Your task to perform on an android device: Add usb-b to the cart on ebay.com, then select checkout. Image 0: 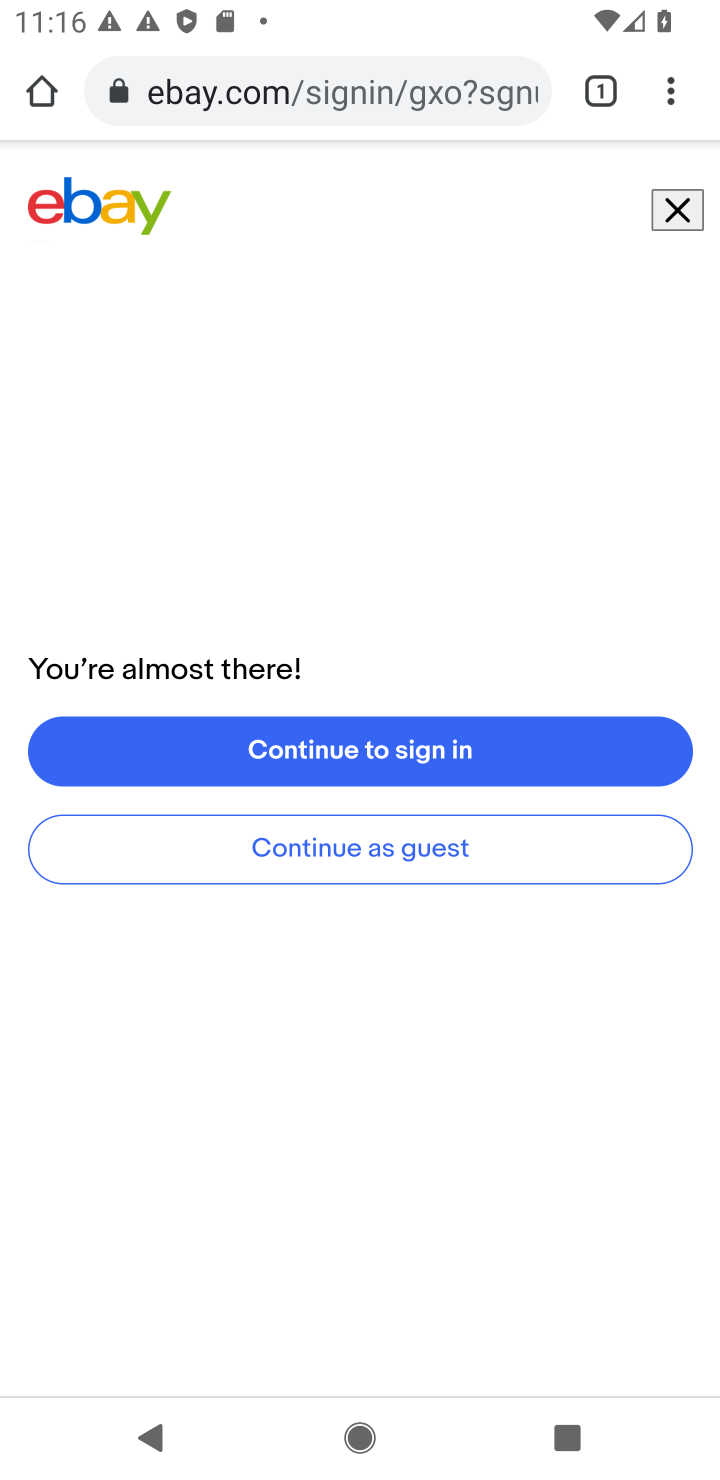
Step 0: click (691, 210)
Your task to perform on an android device: Add usb-b to the cart on ebay.com, then select checkout. Image 1: 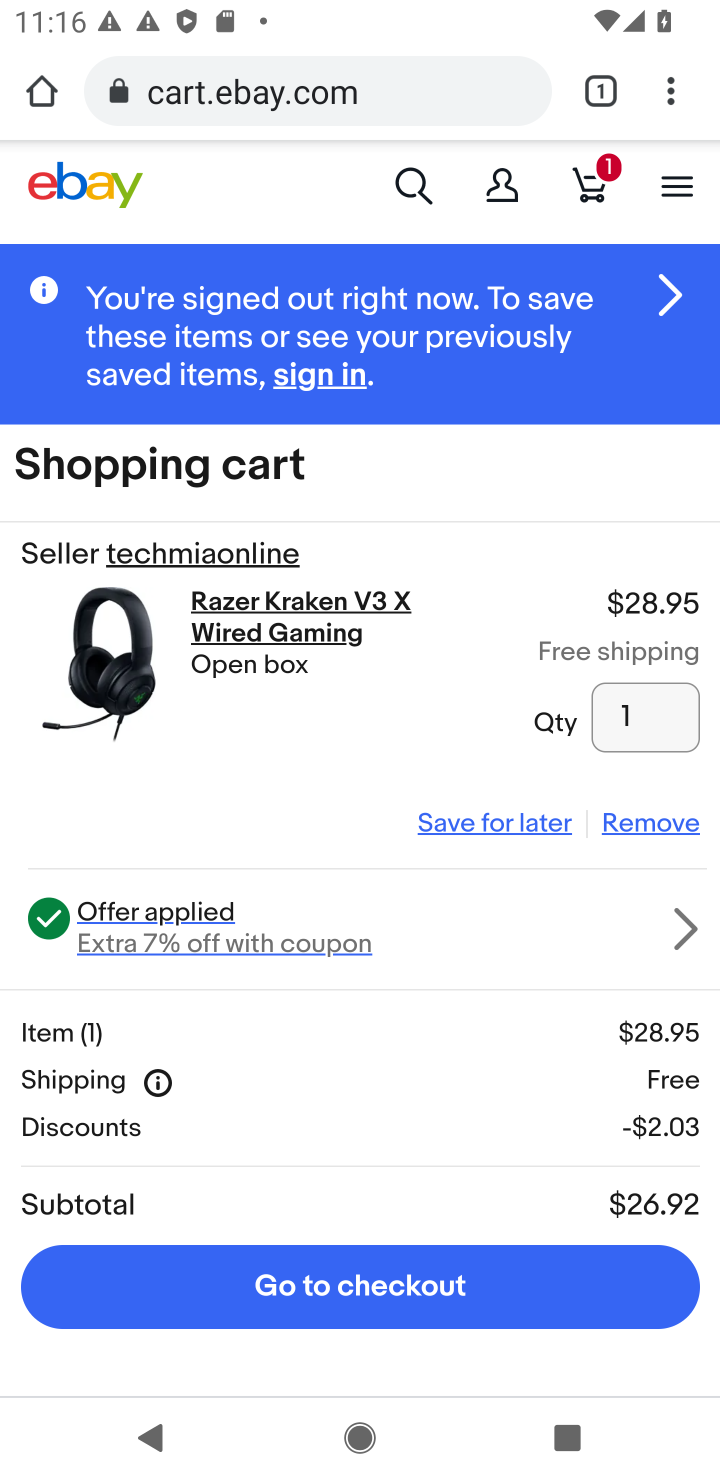
Step 1: click (406, 182)
Your task to perform on an android device: Add usb-b to the cart on ebay.com, then select checkout. Image 2: 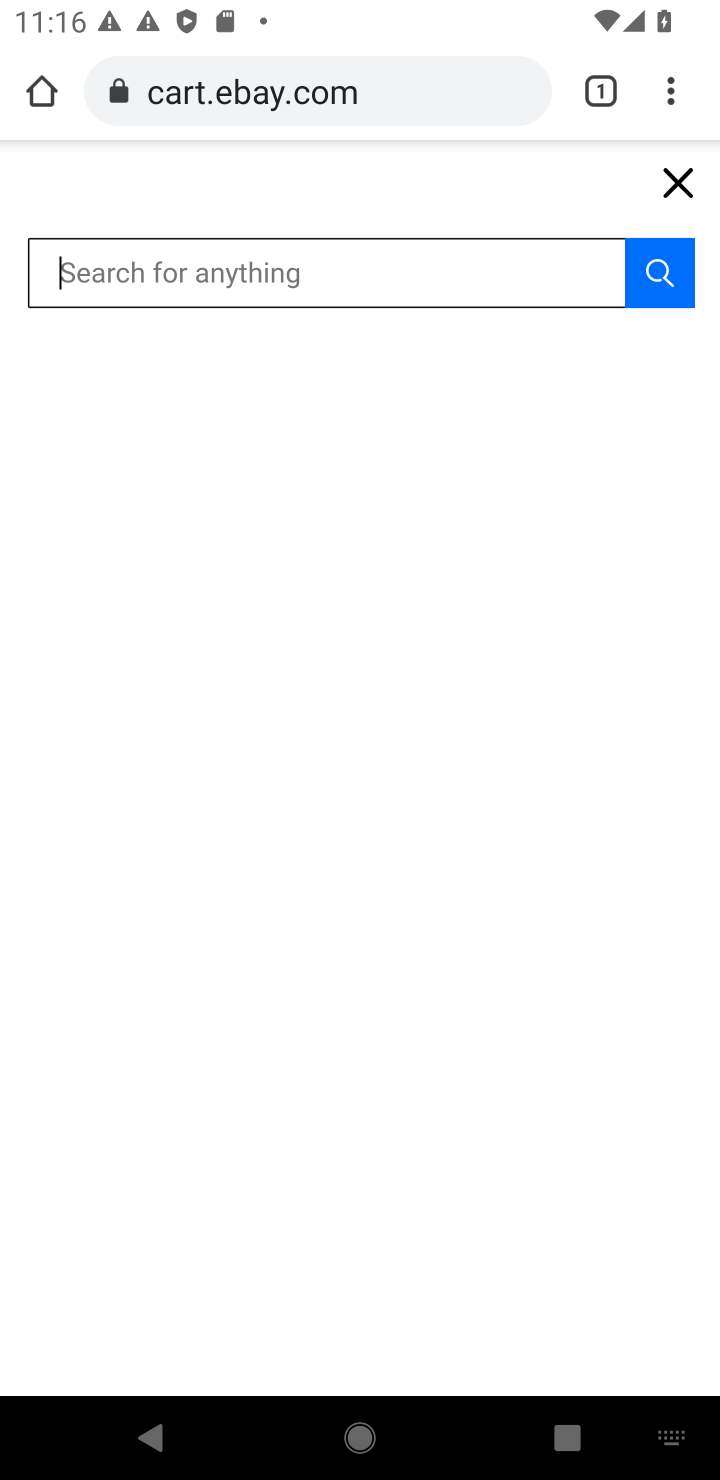
Step 2: type "usb-b"
Your task to perform on an android device: Add usb-b to the cart on ebay.com, then select checkout. Image 3: 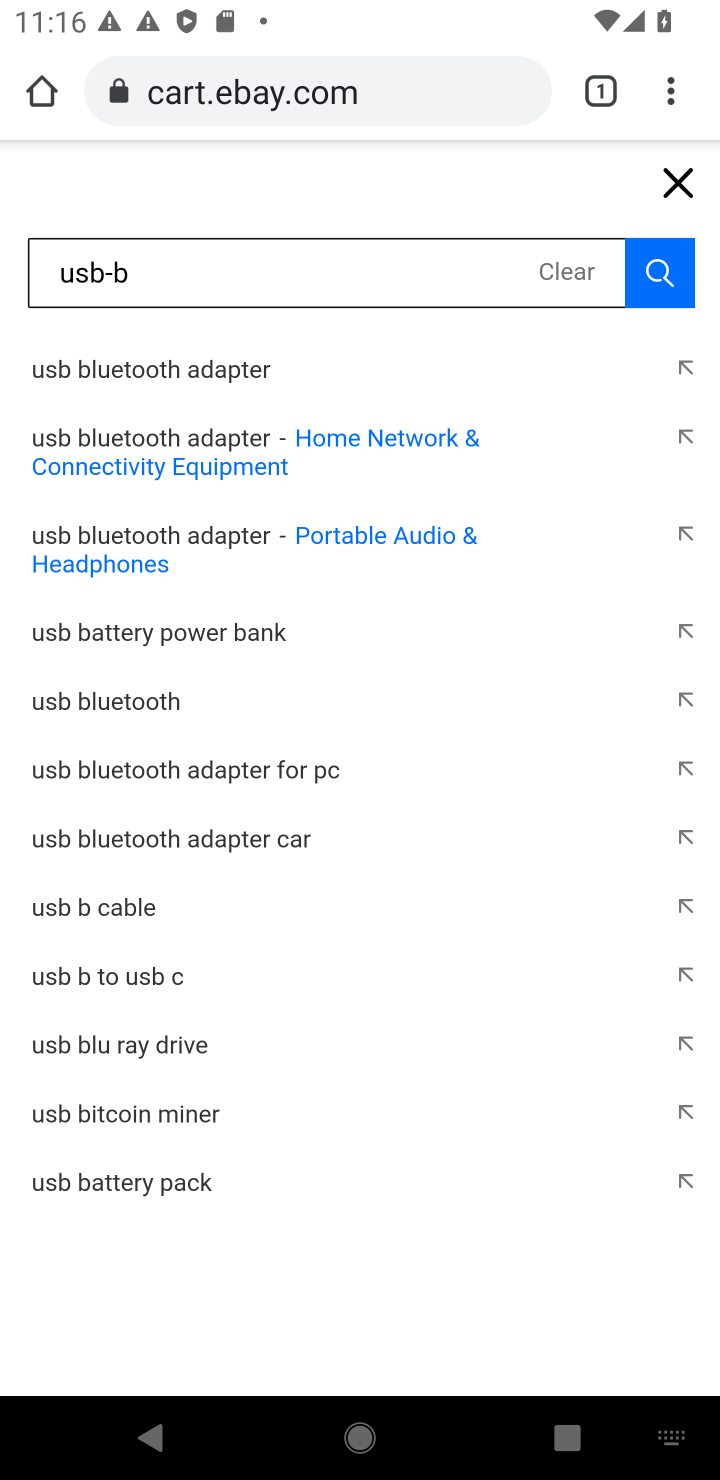
Step 3: click (662, 272)
Your task to perform on an android device: Add usb-b to the cart on ebay.com, then select checkout. Image 4: 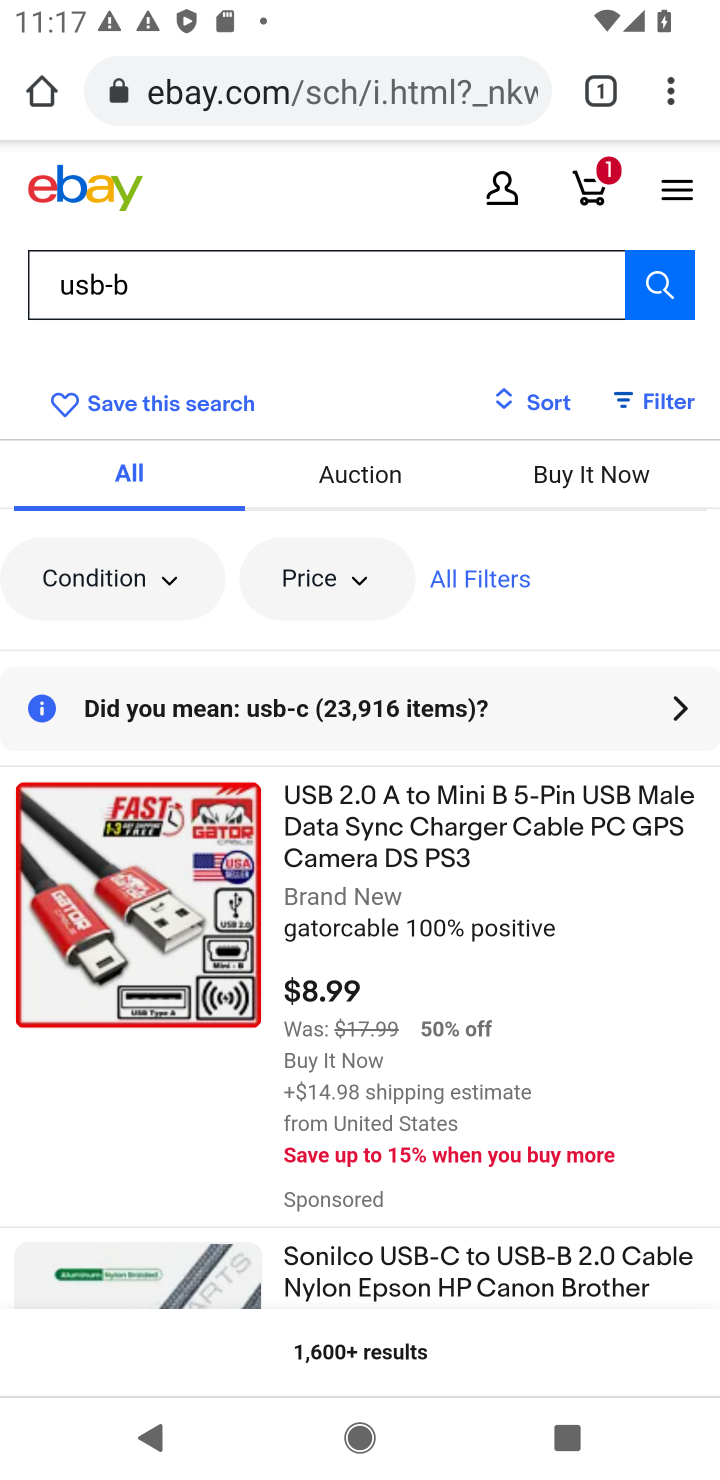
Step 4: drag from (379, 942) to (271, 599)
Your task to perform on an android device: Add usb-b to the cart on ebay.com, then select checkout. Image 5: 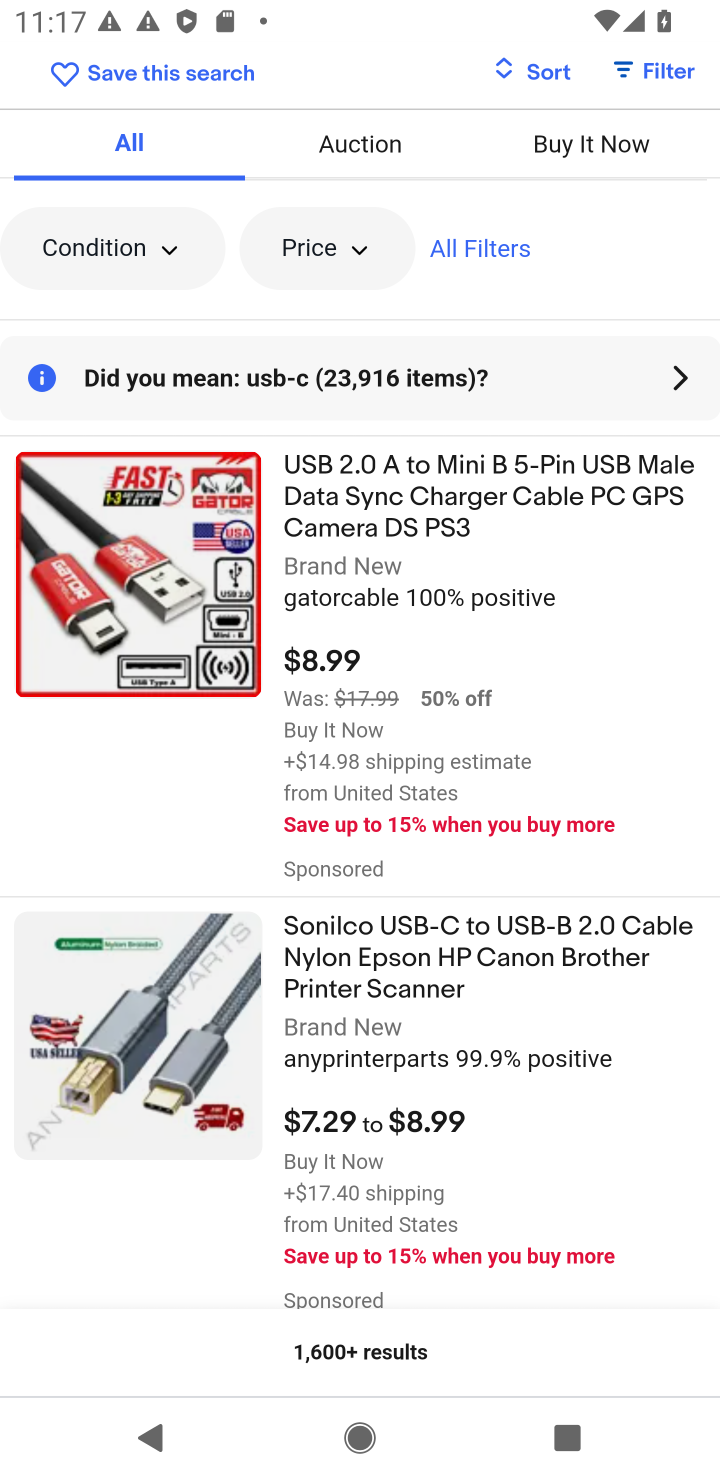
Step 5: click (339, 1000)
Your task to perform on an android device: Add usb-b to the cart on ebay.com, then select checkout. Image 6: 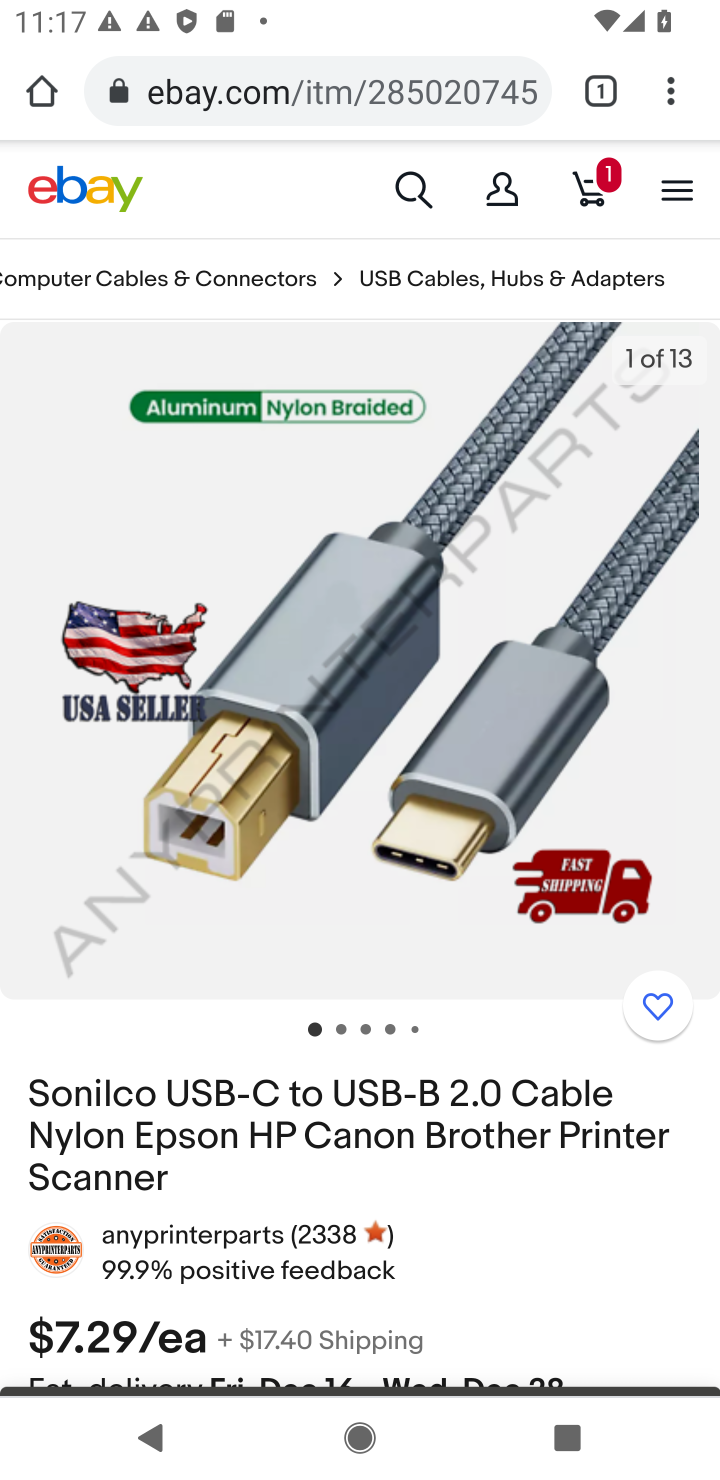
Step 6: drag from (343, 1175) to (315, 470)
Your task to perform on an android device: Add usb-b to the cart on ebay.com, then select checkout. Image 7: 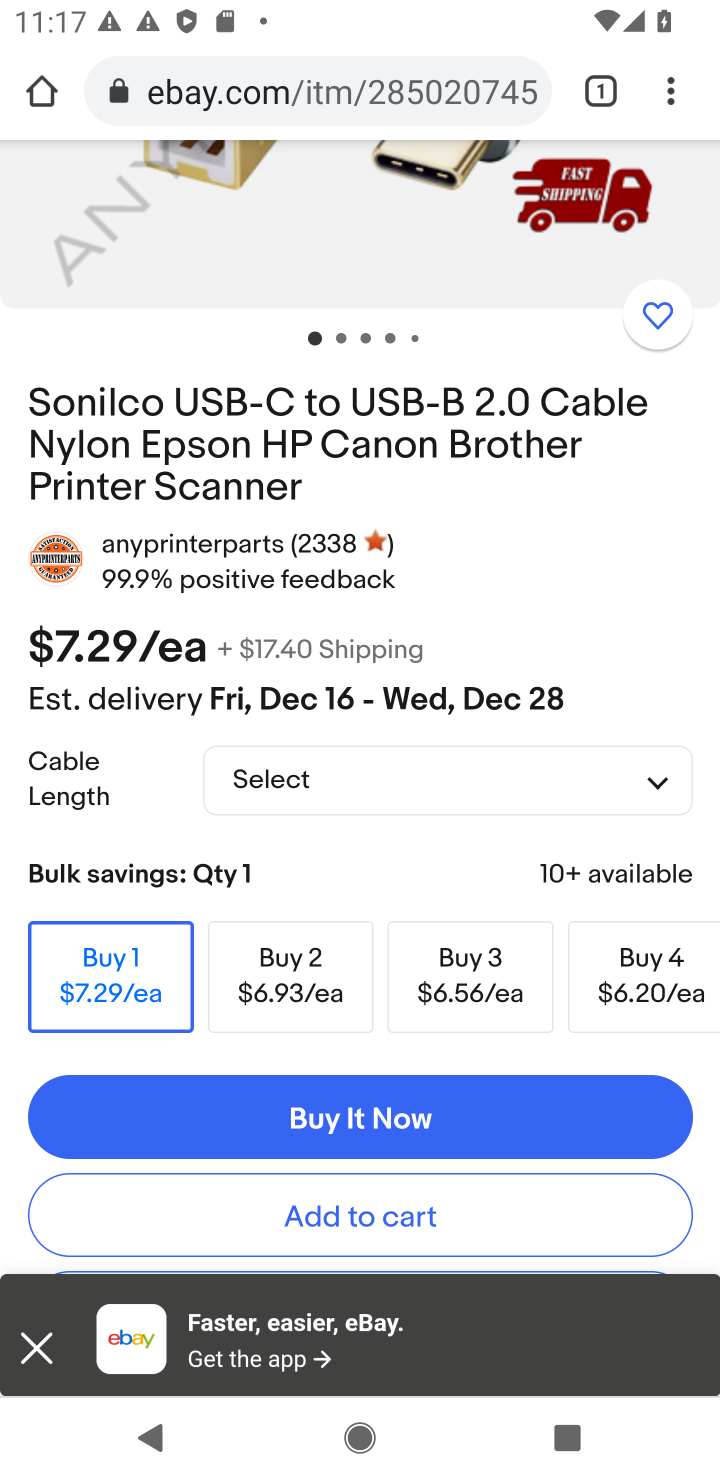
Step 7: click (329, 1211)
Your task to perform on an android device: Add usb-b to the cart on ebay.com, then select checkout. Image 8: 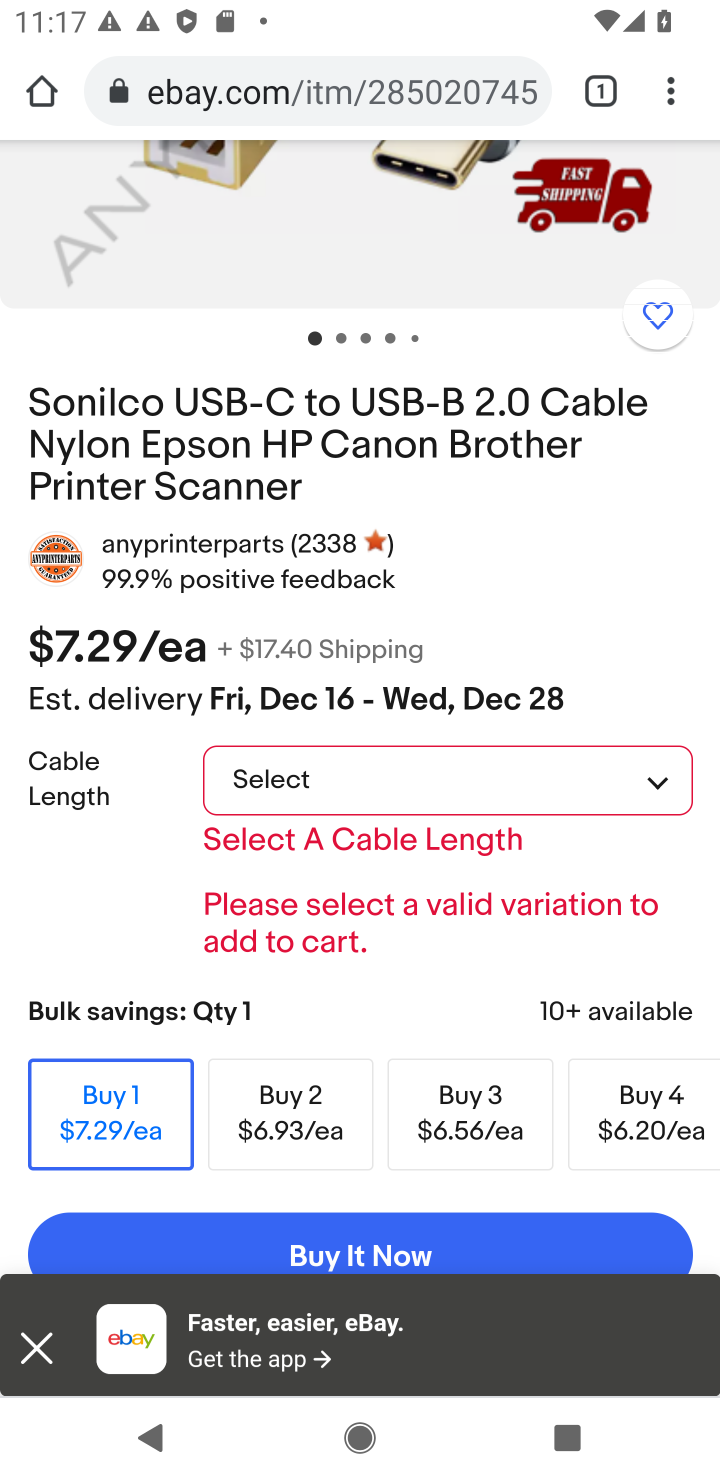
Step 8: click (658, 786)
Your task to perform on an android device: Add usb-b to the cart on ebay.com, then select checkout. Image 9: 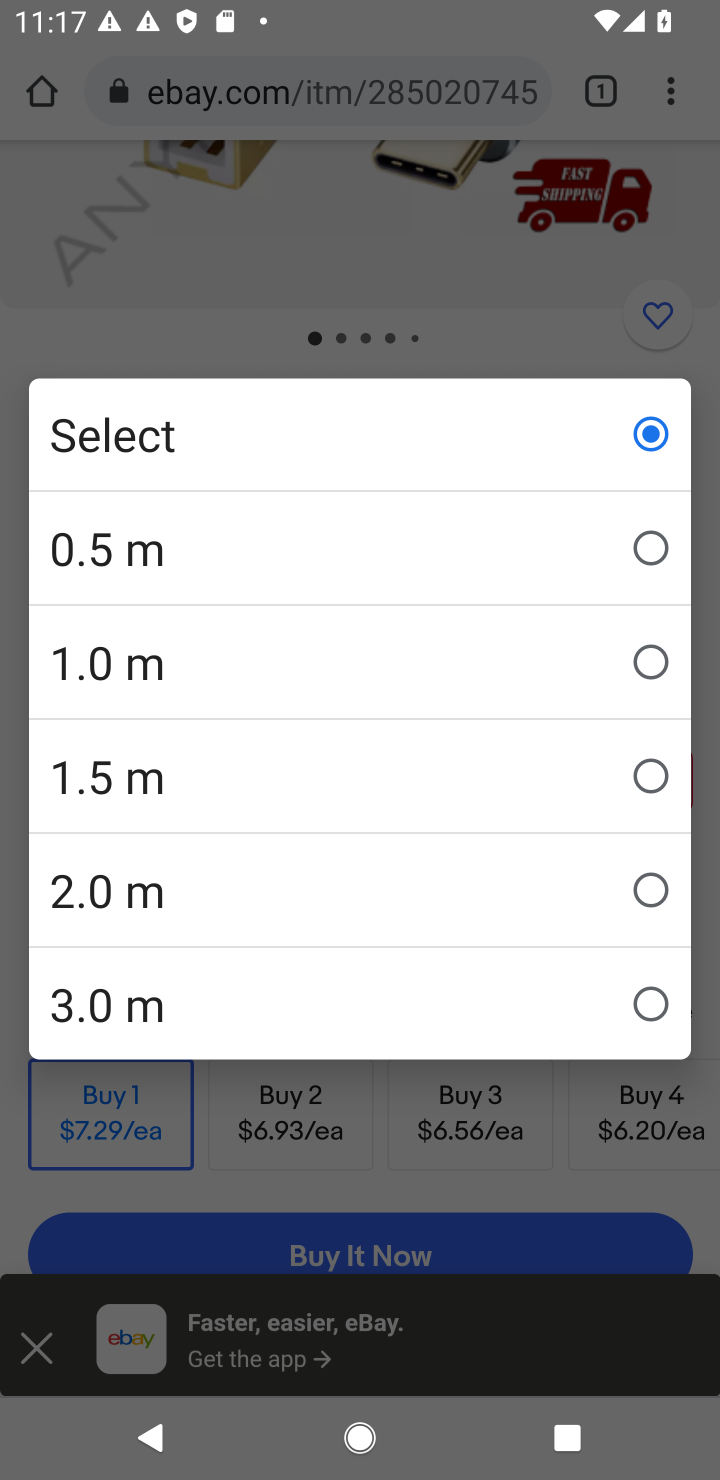
Step 9: click (113, 587)
Your task to perform on an android device: Add usb-b to the cart on ebay.com, then select checkout. Image 10: 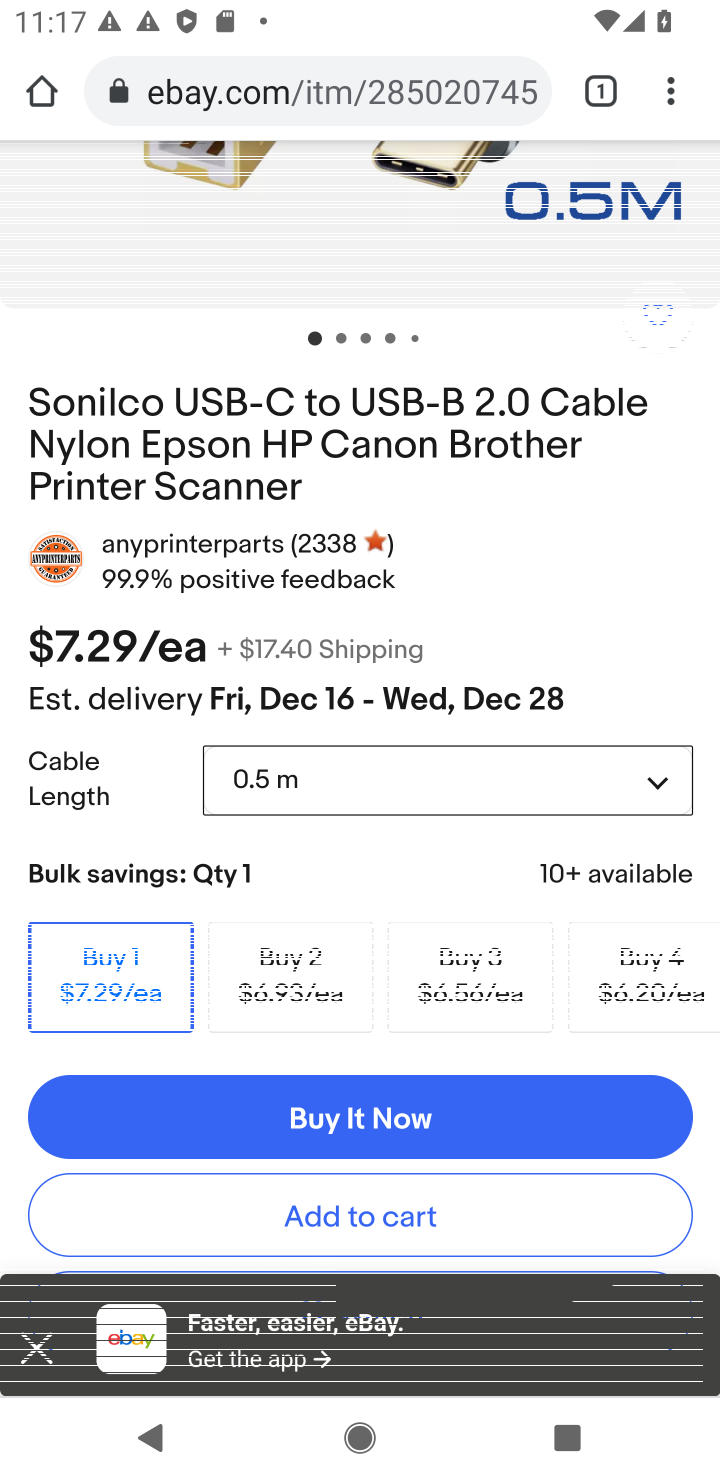
Step 10: click (363, 1220)
Your task to perform on an android device: Add usb-b to the cart on ebay.com, then select checkout. Image 11: 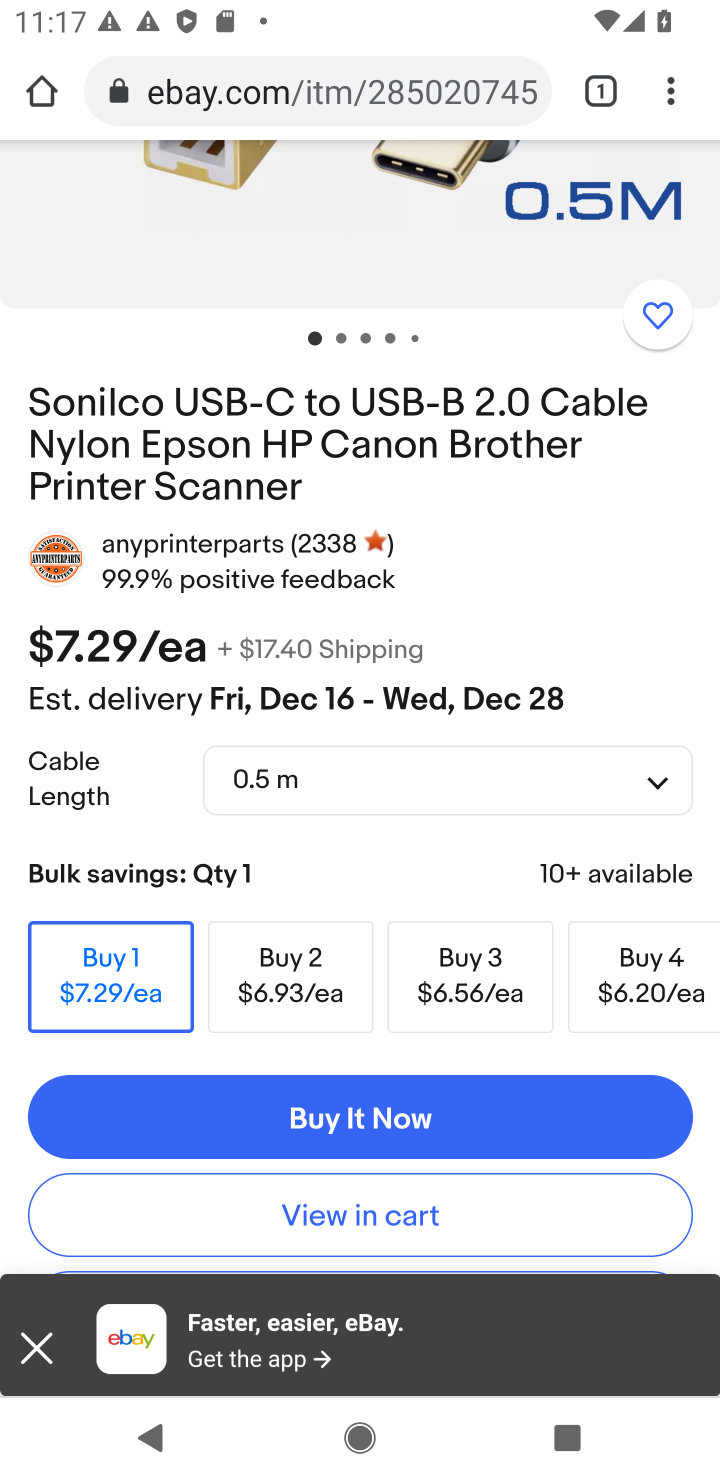
Step 11: click (363, 1220)
Your task to perform on an android device: Add usb-b to the cart on ebay.com, then select checkout. Image 12: 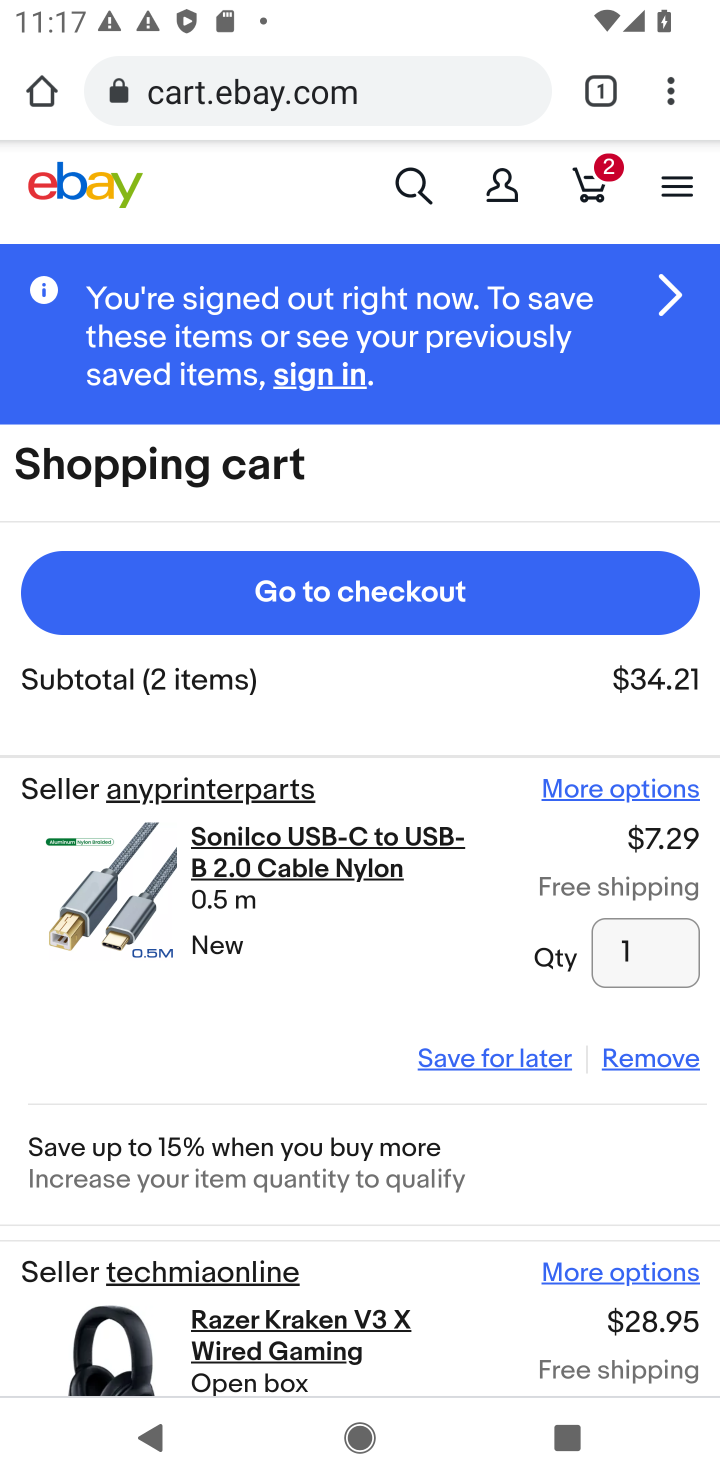
Step 12: click (304, 585)
Your task to perform on an android device: Add usb-b to the cart on ebay.com, then select checkout. Image 13: 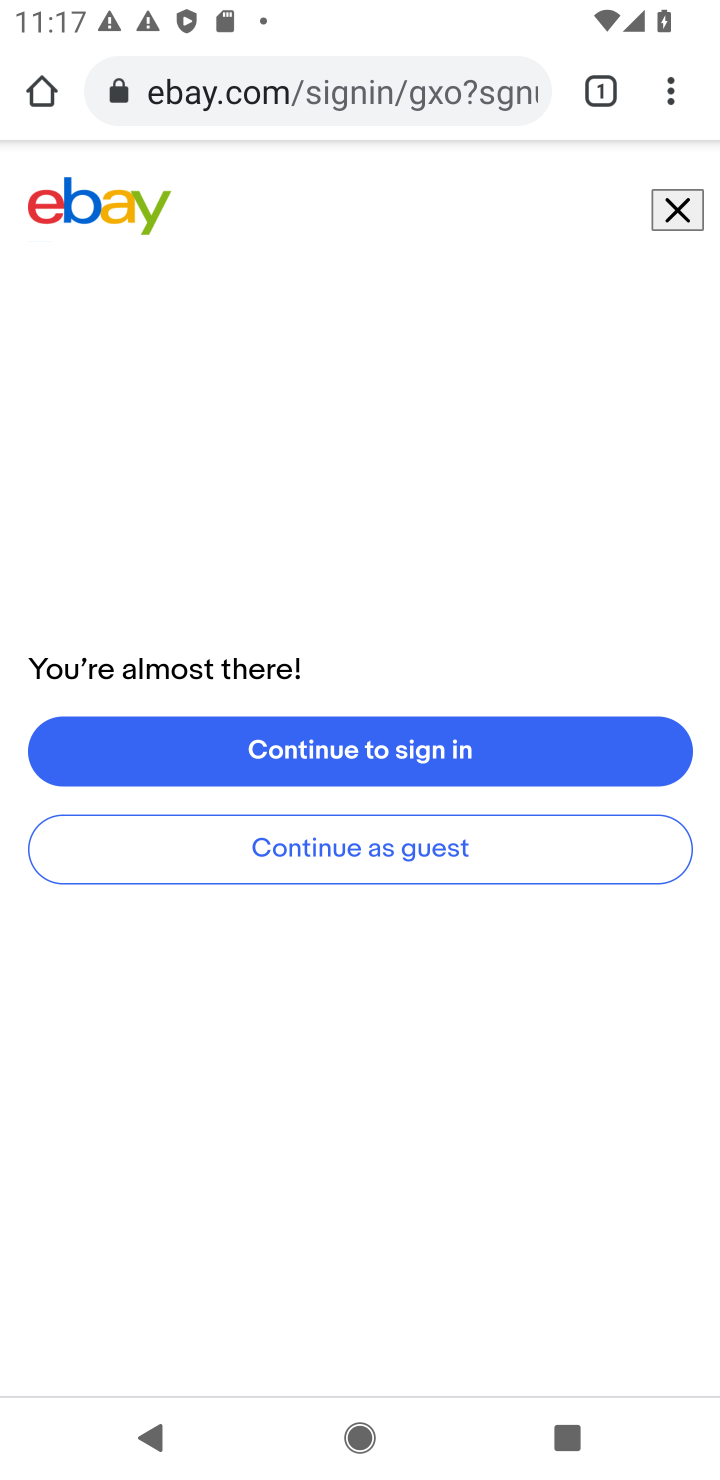
Step 13: task complete